Your task to perform on an android device: turn on showing notifications on the lock screen Image 0: 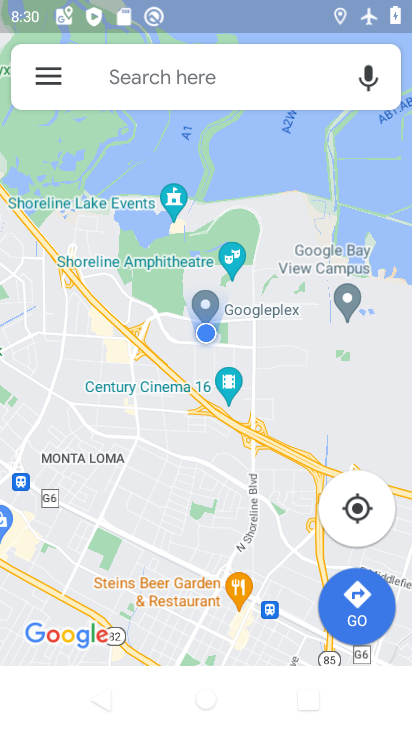
Step 0: press home button
Your task to perform on an android device: turn on showing notifications on the lock screen Image 1: 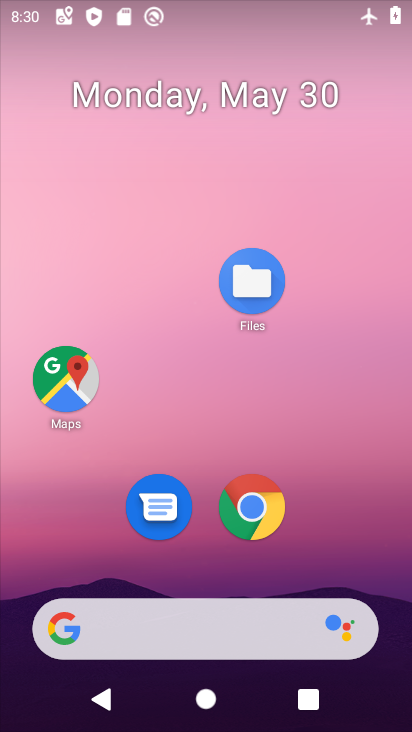
Step 1: drag from (200, 556) to (235, 85)
Your task to perform on an android device: turn on showing notifications on the lock screen Image 2: 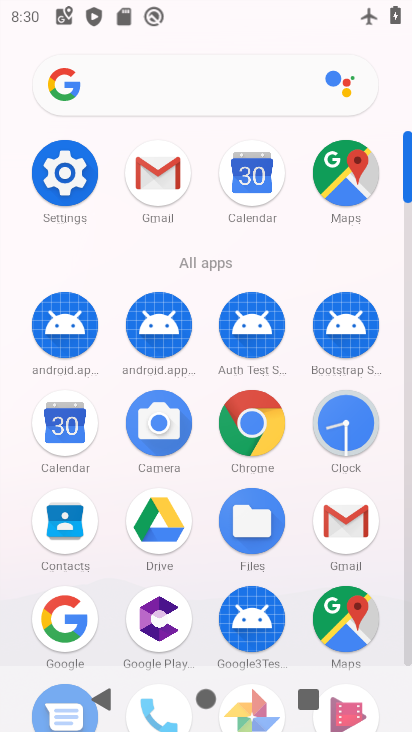
Step 2: click (77, 192)
Your task to perform on an android device: turn on showing notifications on the lock screen Image 3: 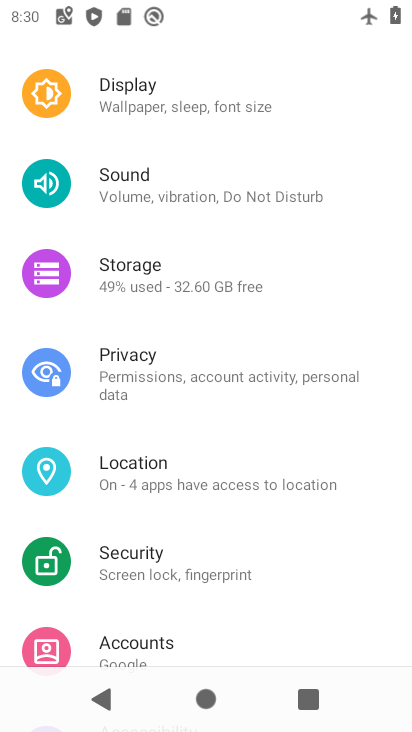
Step 3: drag from (220, 195) to (225, 721)
Your task to perform on an android device: turn on showing notifications on the lock screen Image 4: 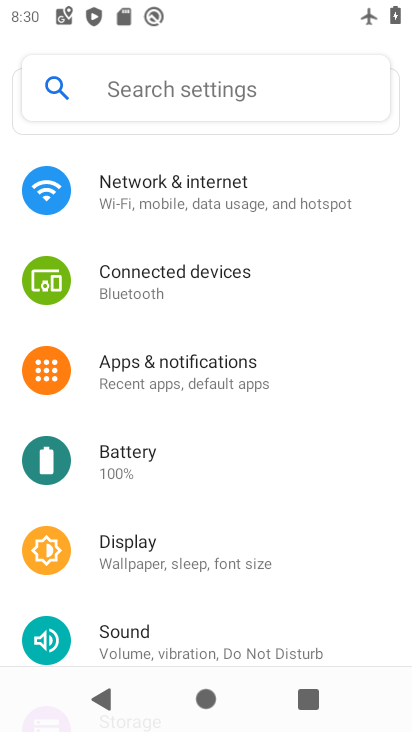
Step 4: click (214, 381)
Your task to perform on an android device: turn on showing notifications on the lock screen Image 5: 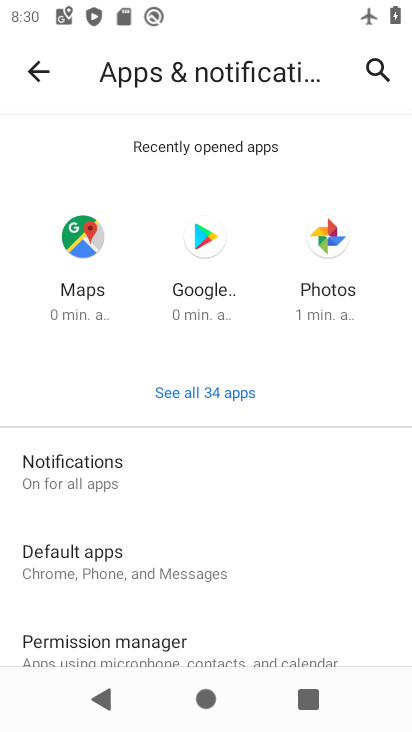
Step 5: click (108, 464)
Your task to perform on an android device: turn on showing notifications on the lock screen Image 6: 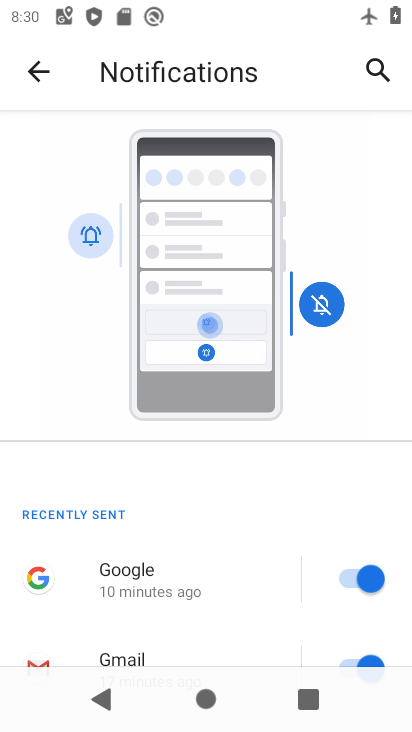
Step 6: drag from (173, 563) to (255, 40)
Your task to perform on an android device: turn on showing notifications on the lock screen Image 7: 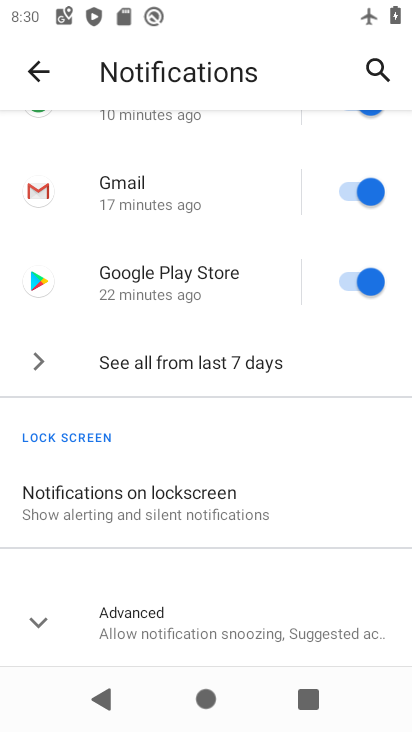
Step 7: click (151, 513)
Your task to perform on an android device: turn on showing notifications on the lock screen Image 8: 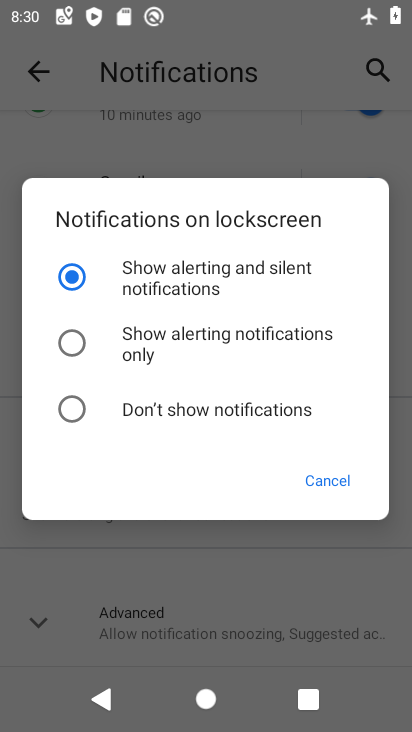
Step 8: task complete